Your task to perform on an android device: open app "Venmo" (install if not already installed) Image 0: 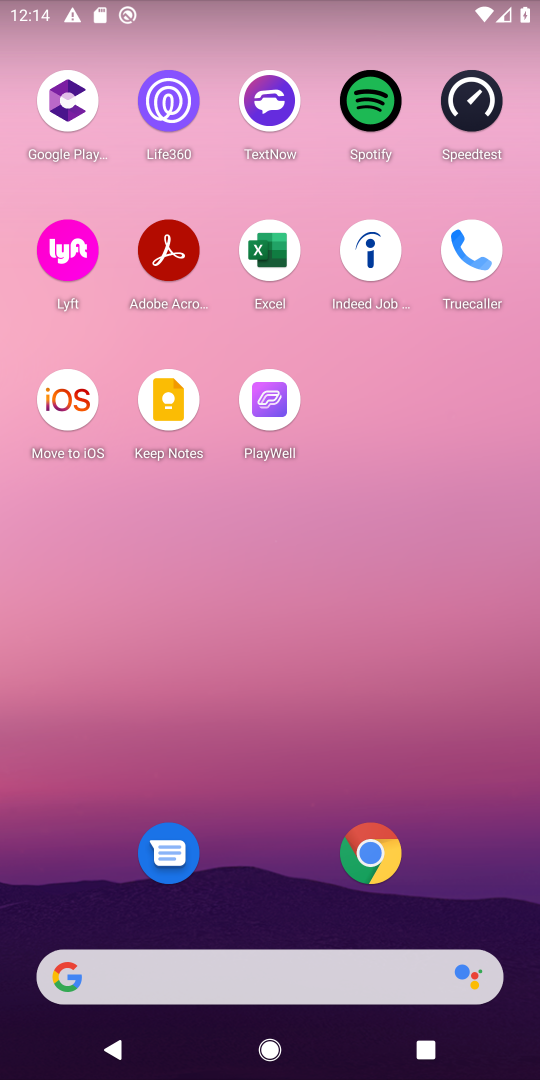
Step 0: drag from (280, 880) to (340, 52)
Your task to perform on an android device: open app "Venmo" (install if not already installed) Image 1: 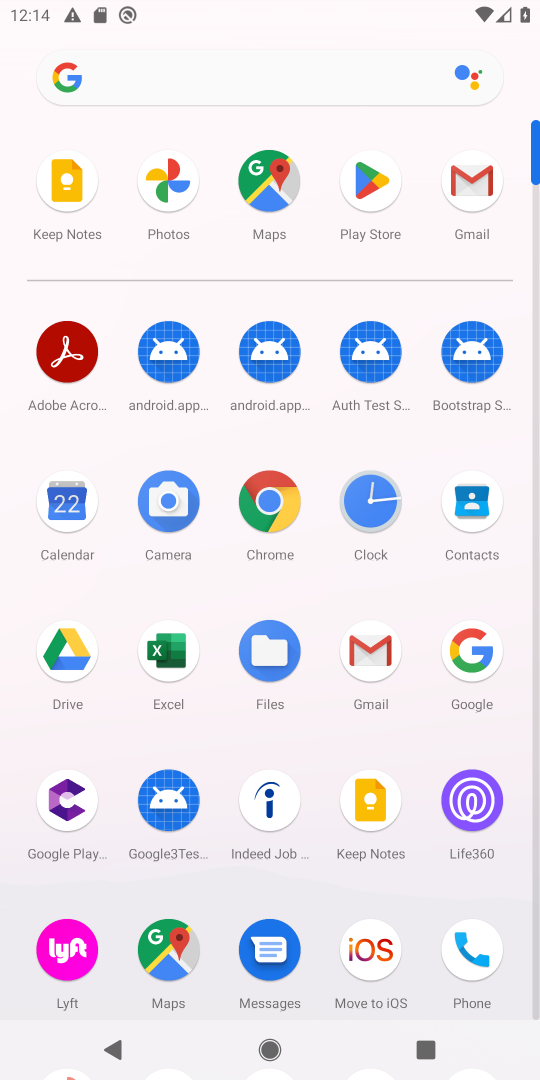
Step 1: click (371, 190)
Your task to perform on an android device: open app "Venmo" (install if not already installed) Image 2: 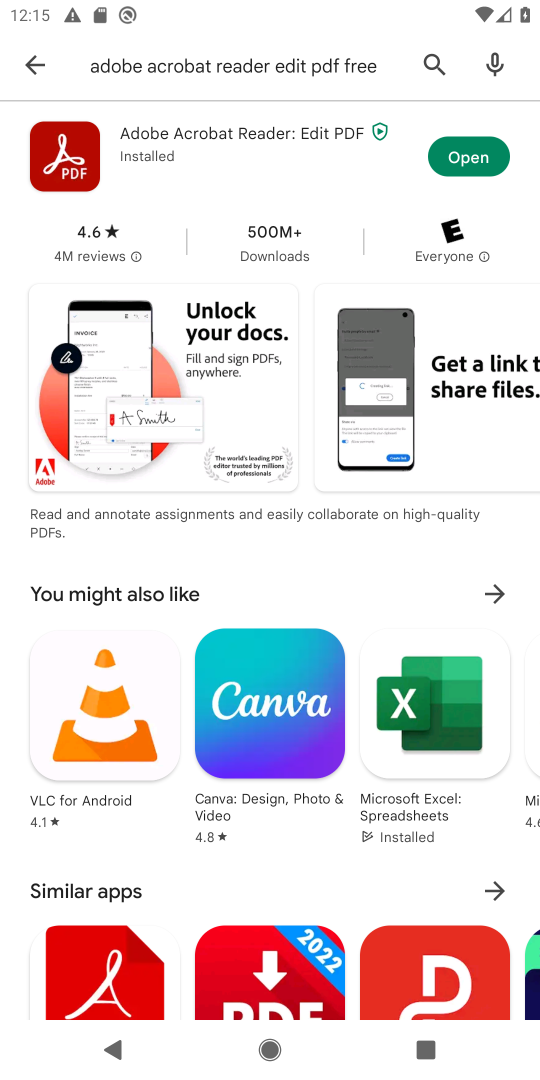
Step 2: click (41, 63)
Your task to perform on an android device: open app "Venmo" (install if not already installed) Image 3: 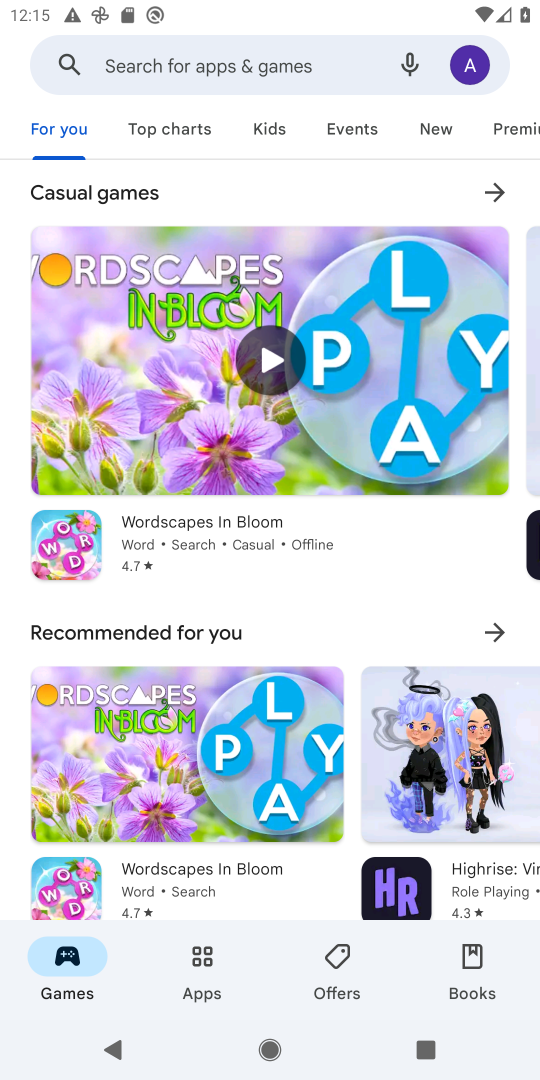
Step 3: click (234, 62)
Your task to perform on an android device: open app "Venmo" (install if not already installed) Image 4: 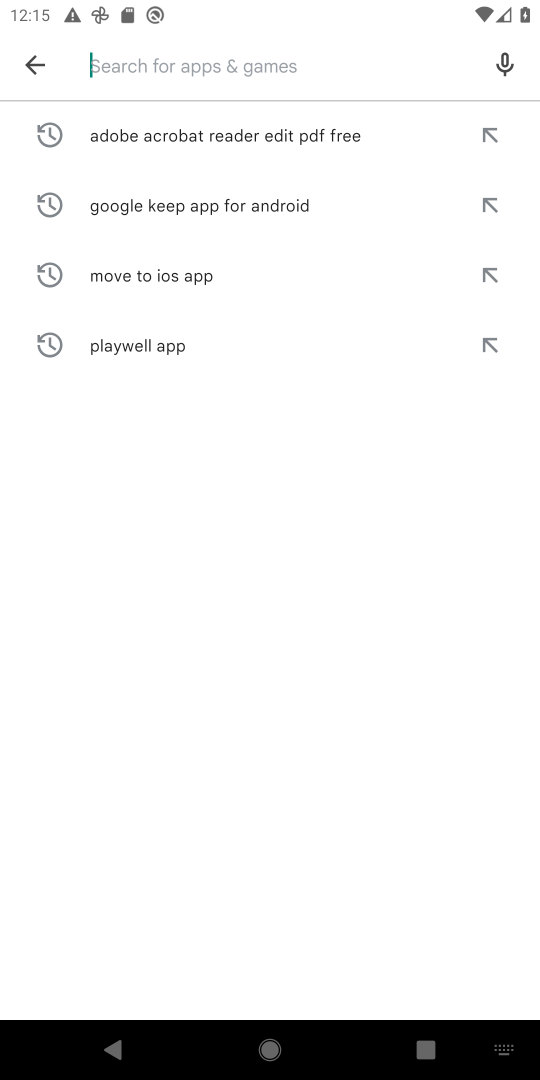
Step 4: type "Venmo "
Your task to perform on an android device: open app "Venmo" (install if not already installed) Image 5: 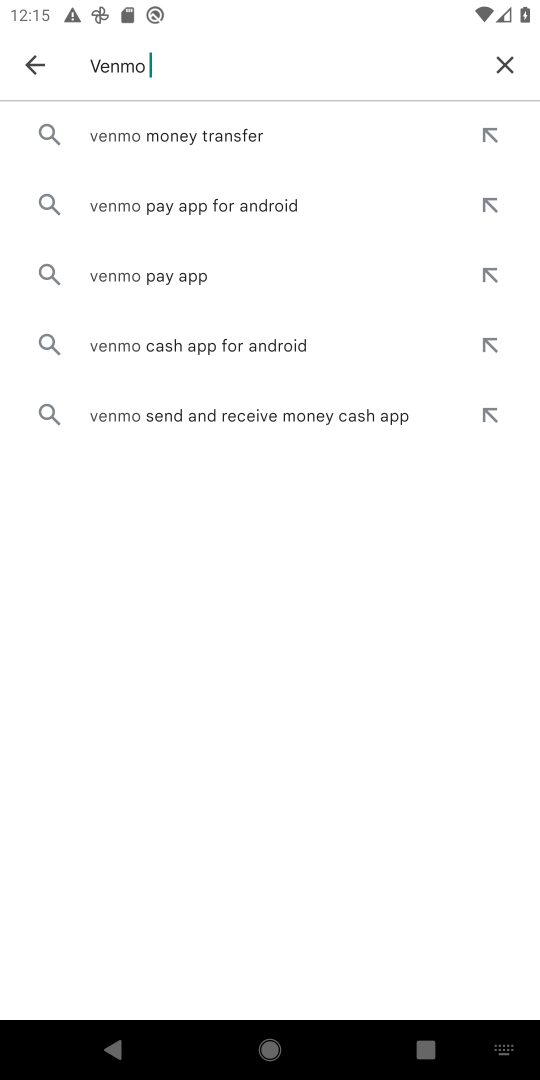
Step 5: click (218, 131)
Your task to perform on an android device: open app "Venmo" (install if not already installed) Image 6: 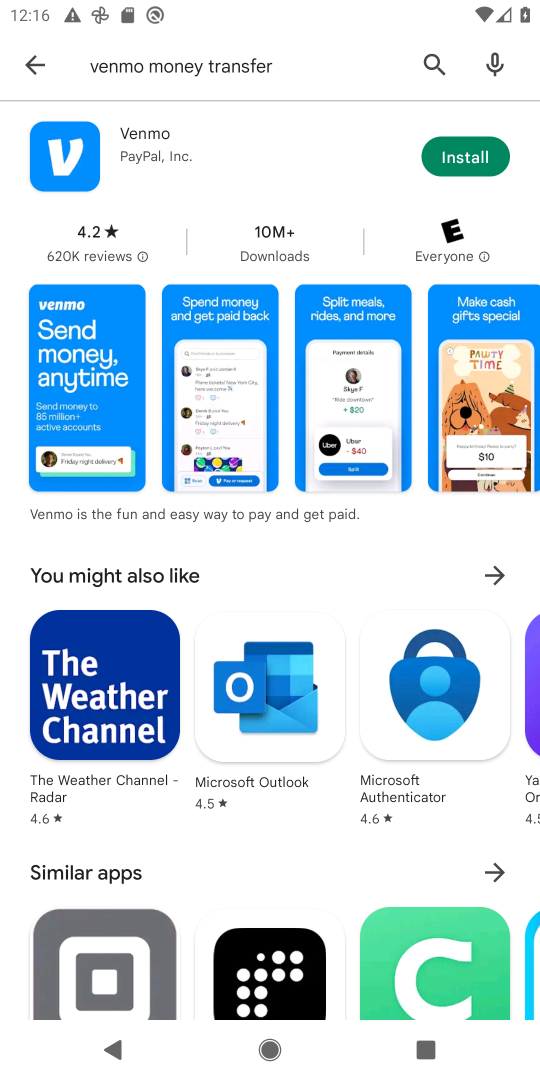
Step 6: click (486, 153)
Your task to perform on an android device: open app "Venmo" (install if not already installed) Image 7: 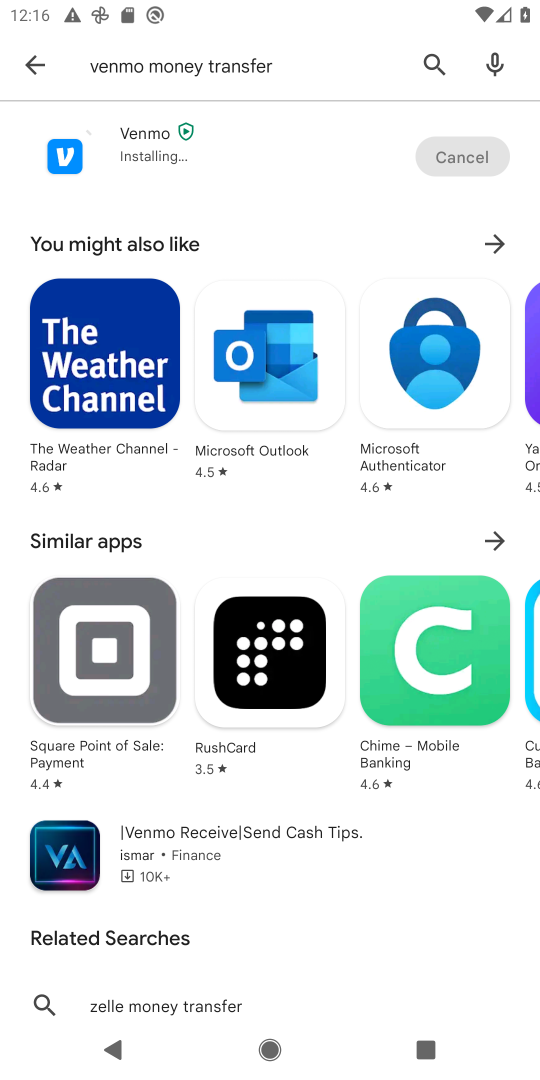
Step 7: task complete